Your task to perform on an android device: Open calendar and show me the first week of next month Image 0: 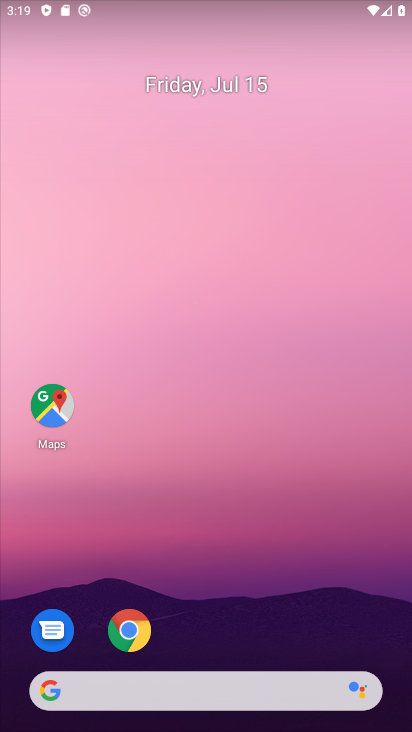
Step 0: drag from (221, 652) to (159, 181)
Your task to perform on an android device: Open calendar and show me the first week of next month Image 1: 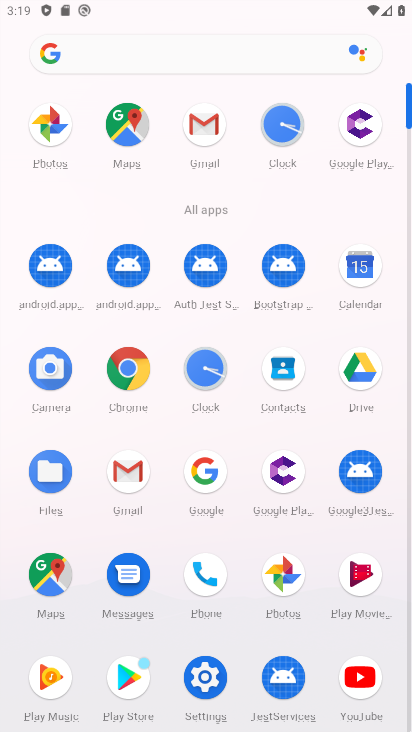
Step 1: click (364, 273)
Your task to perform on an android device: Open calendar and show me the first week of next month Image 2: 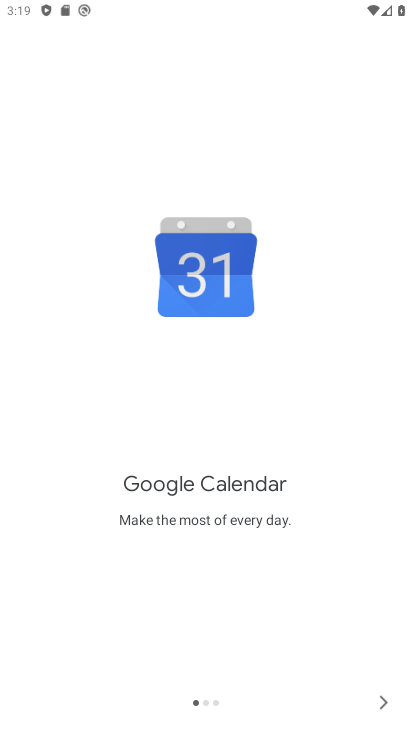
Step 2: click (389, 707)
Your task to perform on an android device: Open calendar and show me the first week of next month Image 3: 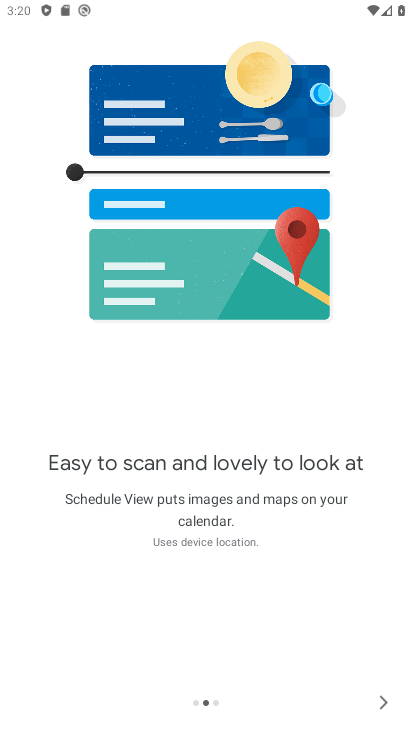
Step 3: click (379, 698)
Your task to perform on an android device: Open calendar and show me the first week of next month Image 4: 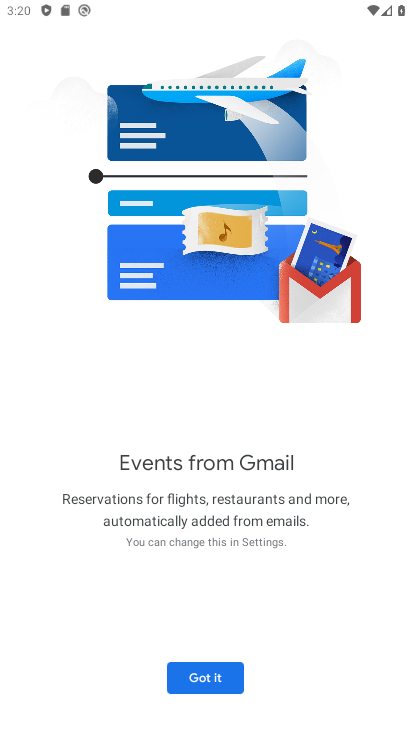
Step 4: click (232, 674)
Your task to perform on an android device: Open calendar and show me the first week of next month Image 5: 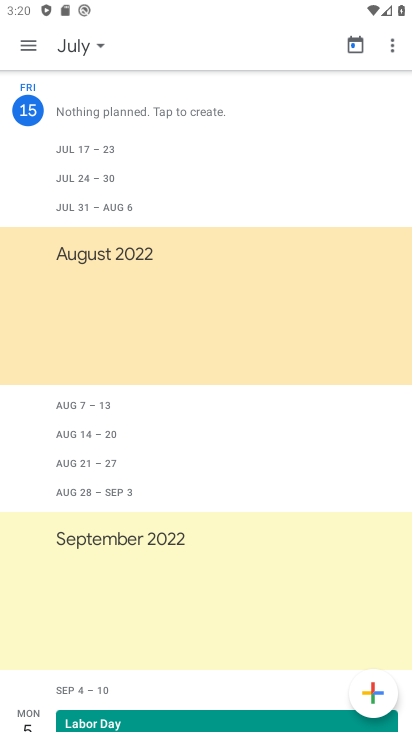
Step 5: click (35, 51)
Your task to perform on an android device: Open calendar and show me the first week of next month Image 6: 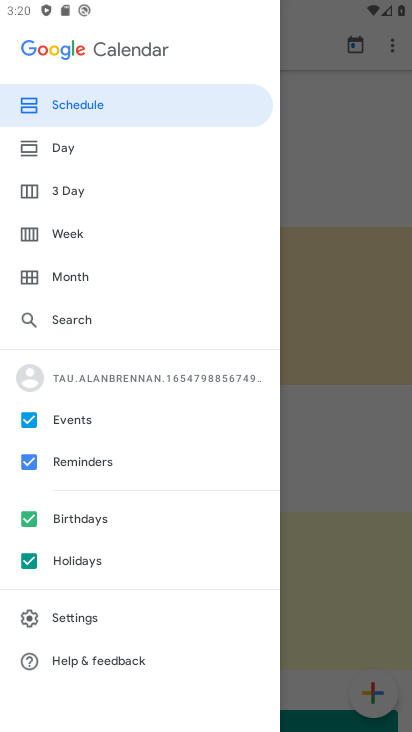
Step 6: click (68, 229)
Your task to perform on an android device: Open calendar and show me the first week of next month Image 7: 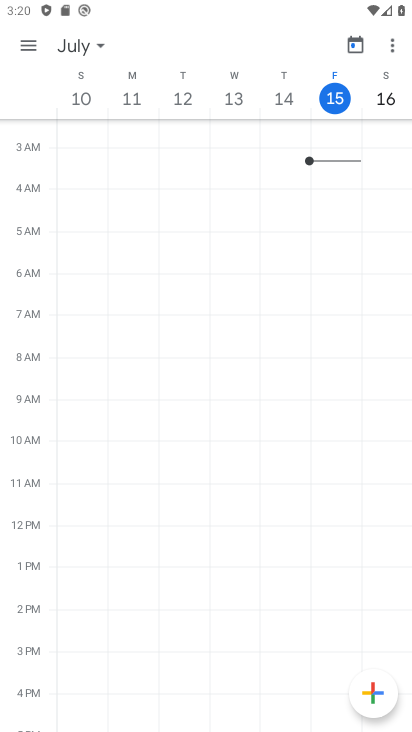
Step 7: task complete